Your task to perform on an android device: Open display settings Image 0: 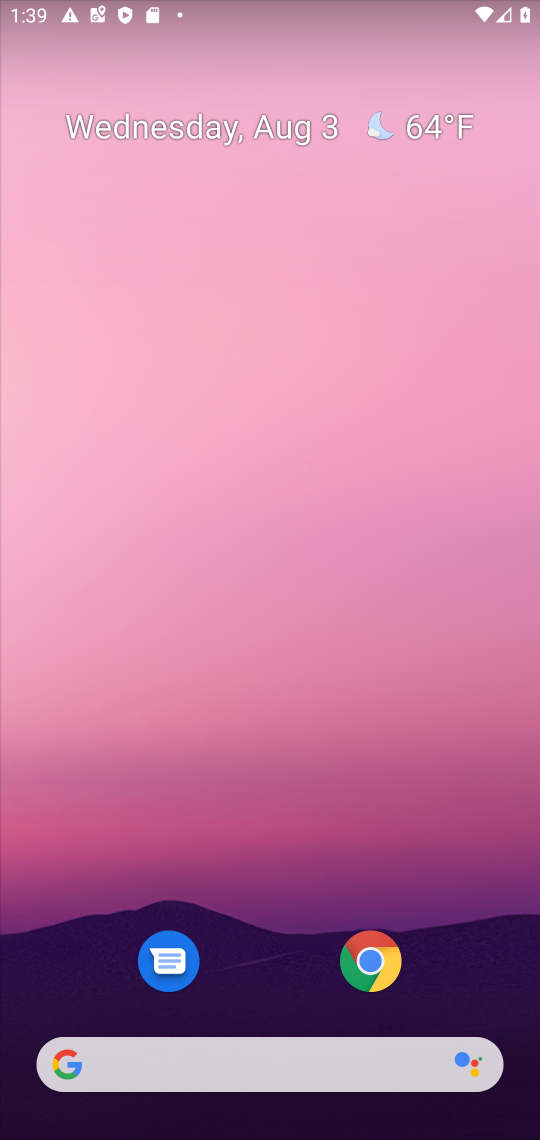
Step 0: drag from (301, 575) to (329, 12)
Your task to perform on an android device: Open display settings Image 1: 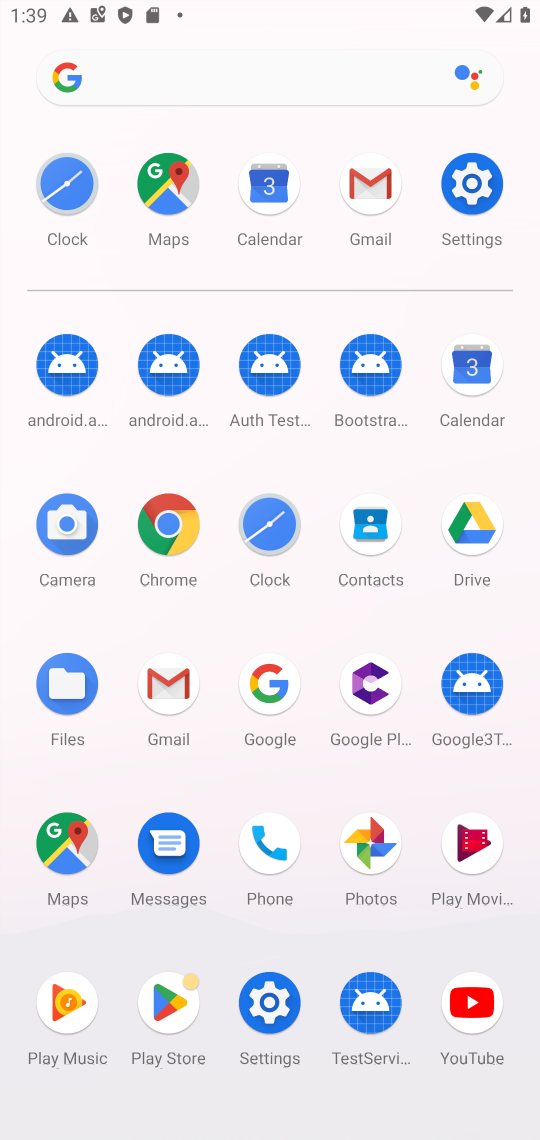
Step 1: click (474, 184)
Your task to perform on an android device: Open display settings Image 2: 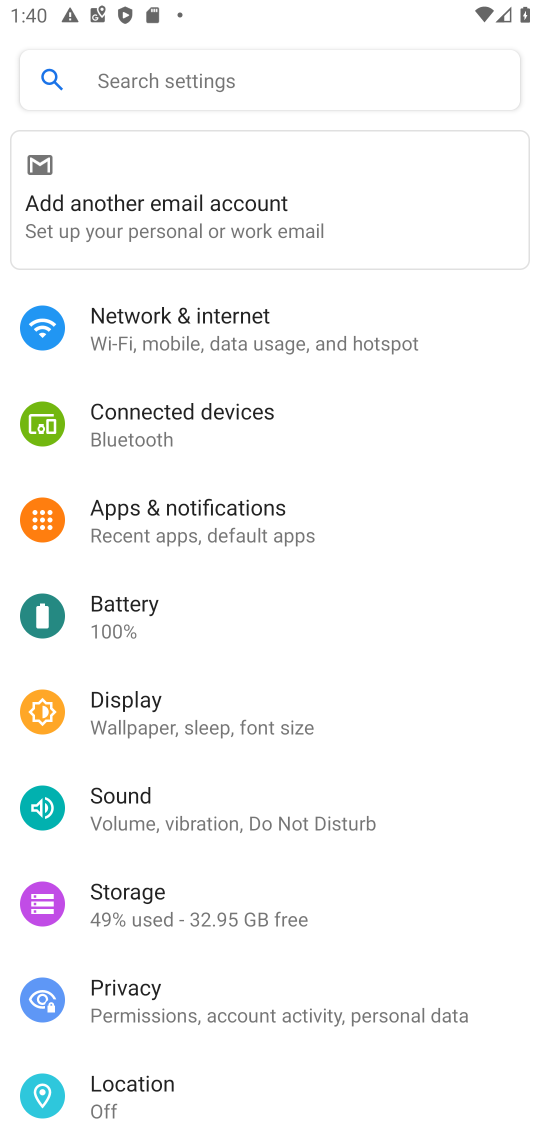
Step 2: click (124, 724)
Your task to perform on an android device: Open display settings Image 3: 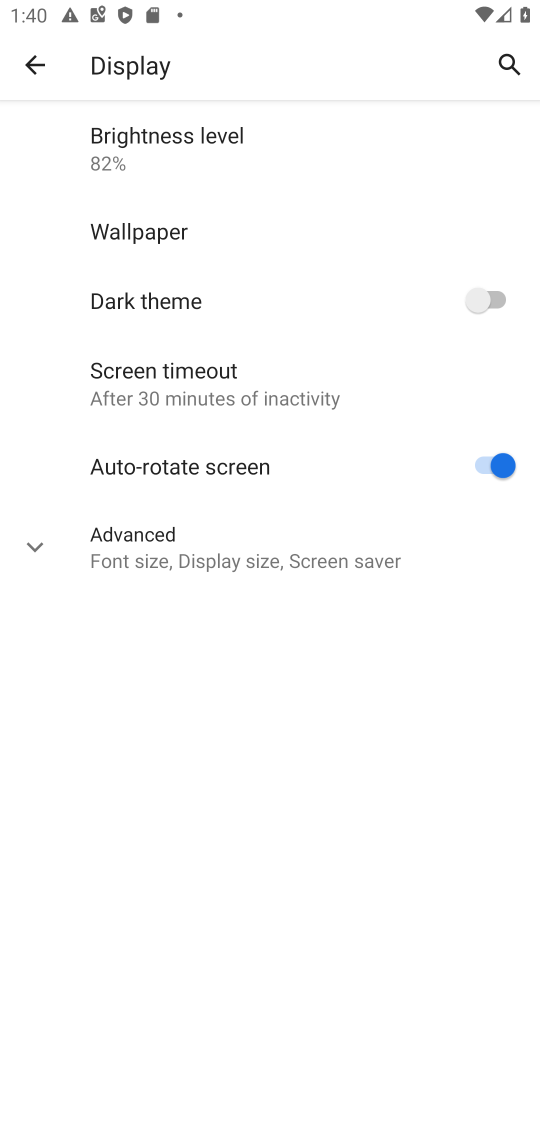
Step 3: click (32, 555)
Your task to perform on an android device: Open display settings Image 4: 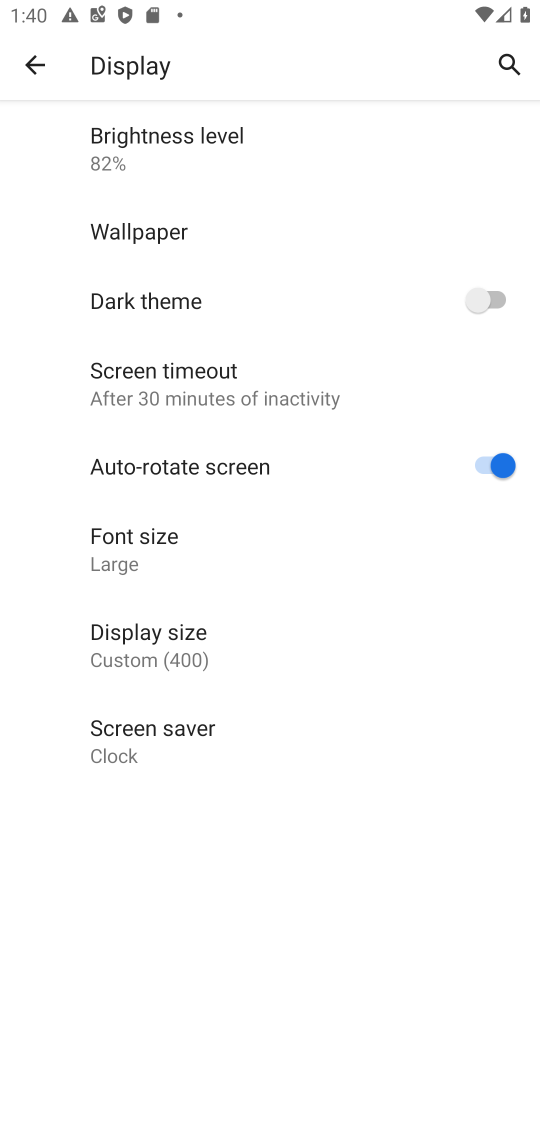
Step 4: task complete